Your task to perform on an android device: Turn off the flashlight Image 0: 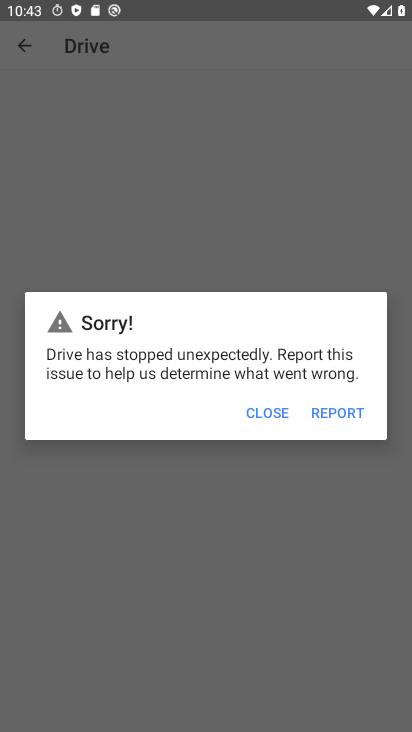
Step 0: press home button
Your task to perform on an android device: Turn off the flashlight Image 1: 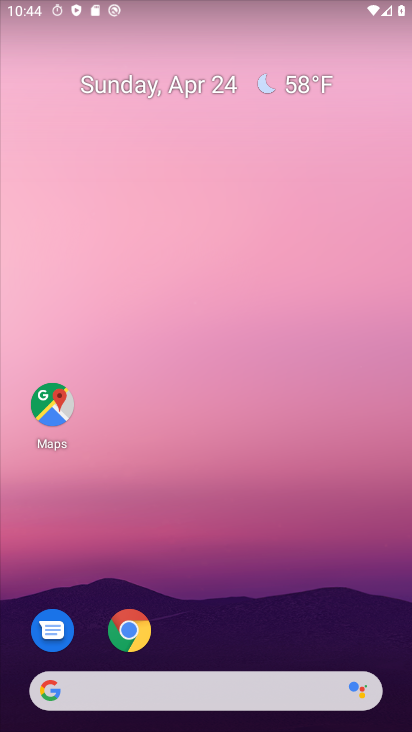
Step 1: task complete